Your task to perform on an android device: toggle wifi Image 0: 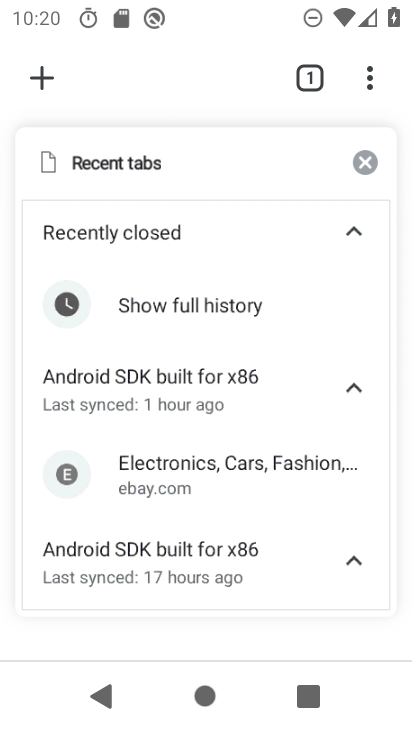
Step 0: press home button
Your task to perform on an android device: toggle wifi Image 1: 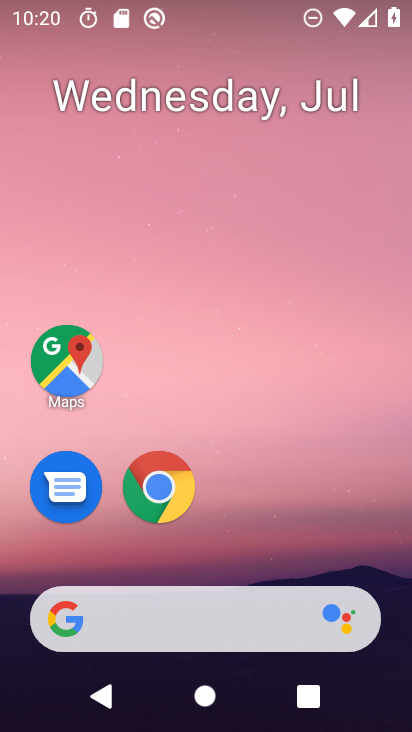
Step 1: drag from (339, 542) to (331, 139)
Your task to perform on an android device: toggle wifi Image 2: 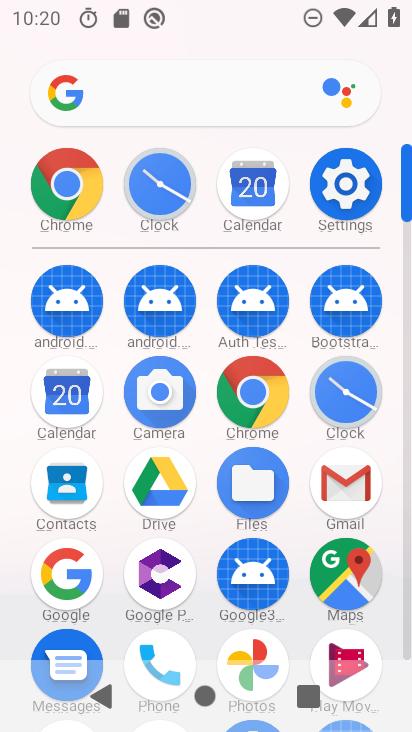
Step 2: click (344, 193)
Your task to perform on an android device: toggle wifi Image 3: 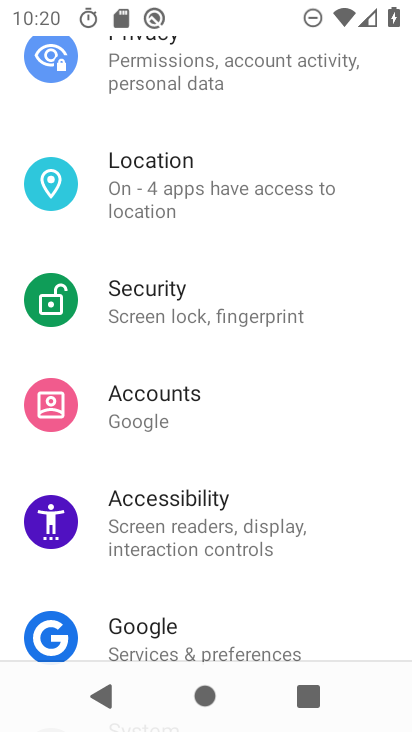
Step 3: drag from (370, 197) to (362, 288)
Your task to perform on an android device: toggle wifi Image 4: 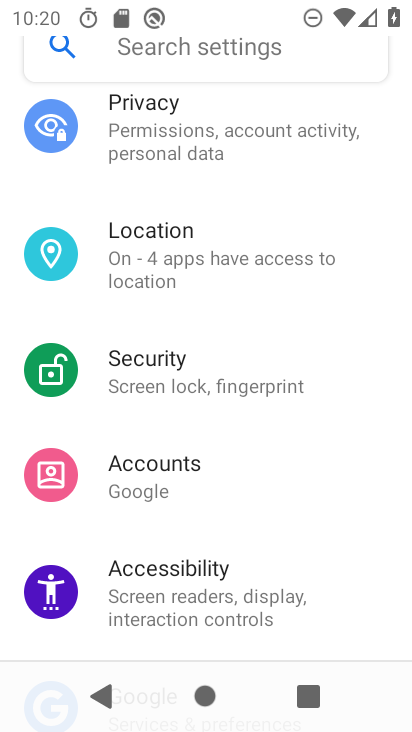
Step 4: drag from (352, 195) to (361, 338)
Your task to perform on an android device: toggle wifi Image 5: 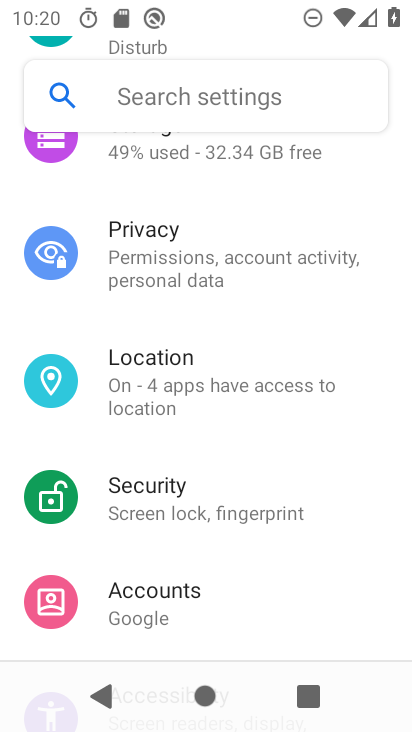
Step 5: drag from (372, 206) to (368, 378)
Your task to perform on an android device: toggle wifi Image 6: 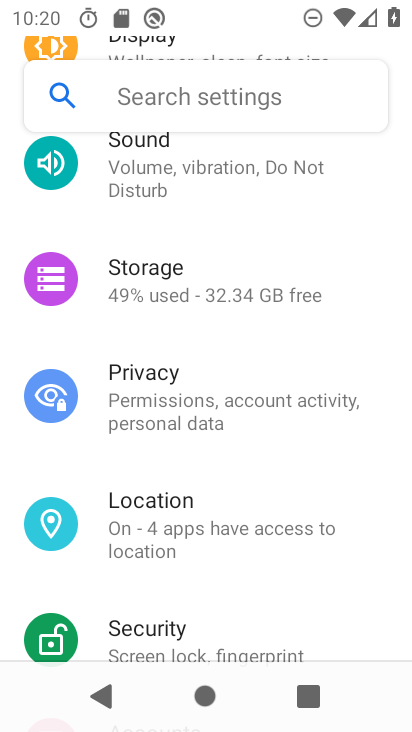
Step 6: drag from (372, 238) to (364, 388)
Your task to perform on an android device: toggle wifi Image 7: 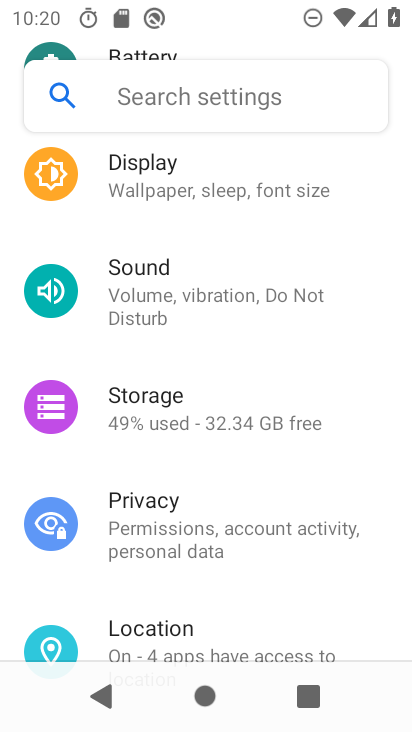
Step 7: drag from (350, 216) to (346, 357)
Your task to perform on an android device: toggle wifi Image 8: 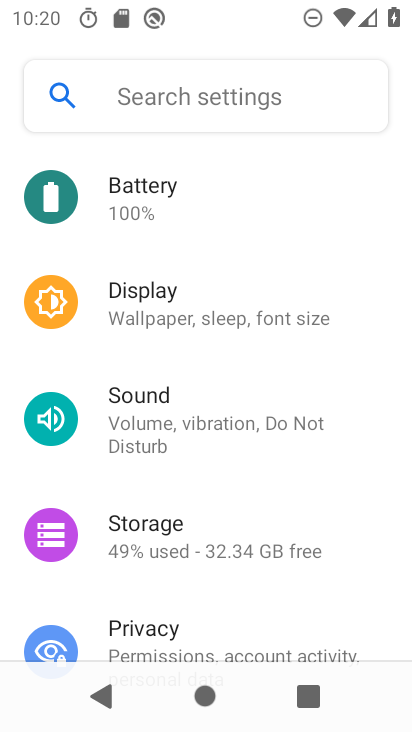
Step 8: drag from (355, 220) to (341, 392)
Your task to perform on an android device: toggle wifi Image 9: 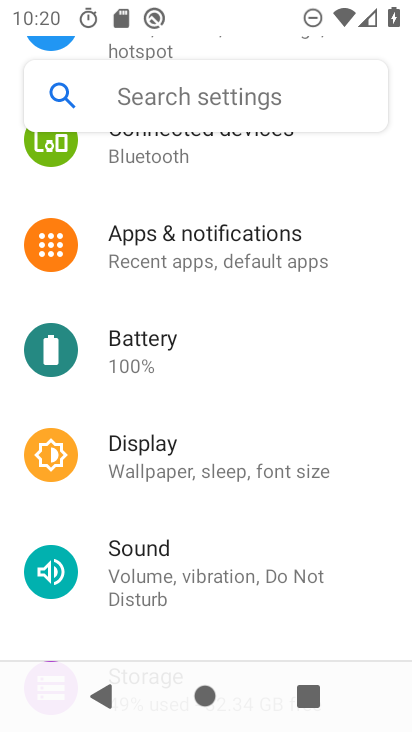
Step 9: drag from (354, 191) to (374, 352)
Your task to perform on an android device: toggle wifi Image 10: 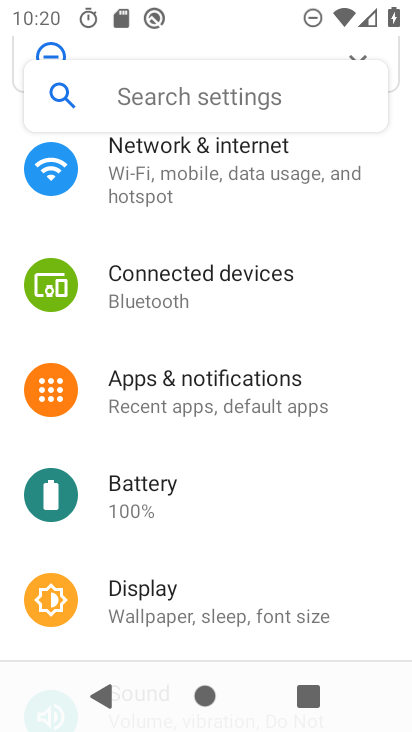
Step 10: drag from (362, 213) to (357, 336)
Your task to perform on an android device: toggle wifi Image 11: 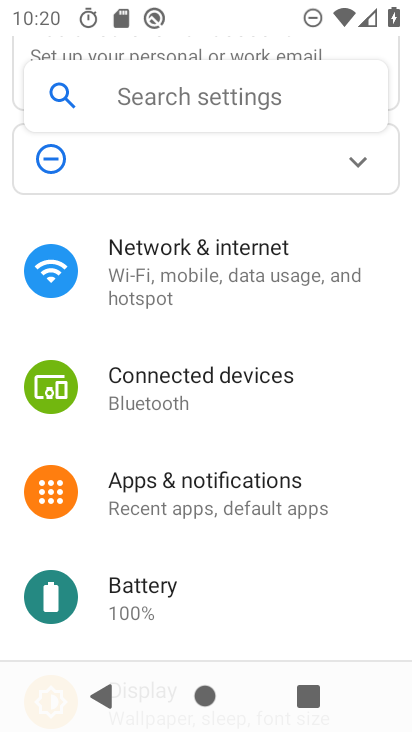
Step 11: click (303, 265)
Your task to perform on an android device: toggle wifi Image 12: 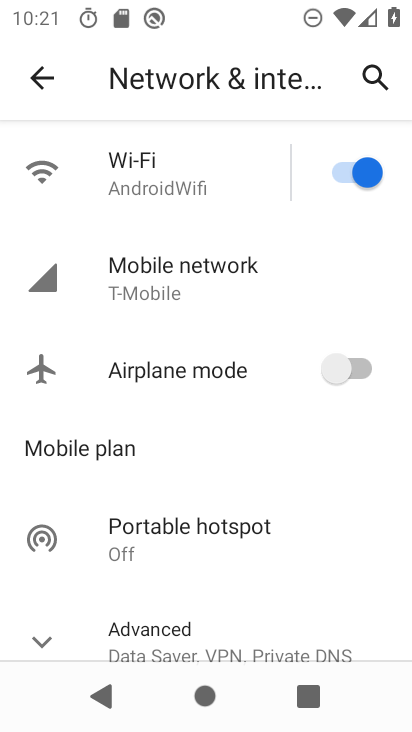
Step 12: click (358, 177)
Your task to perform on an android device: toggle wifi Image 13: 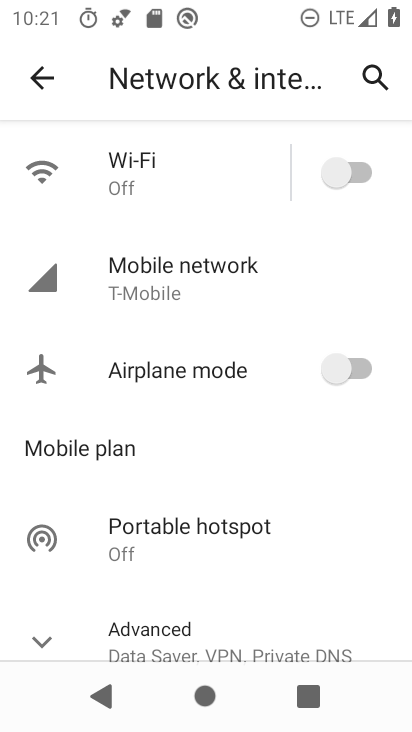
Step 13: task complete